Your task to perform on an android device: Go to Amazon Image 0: 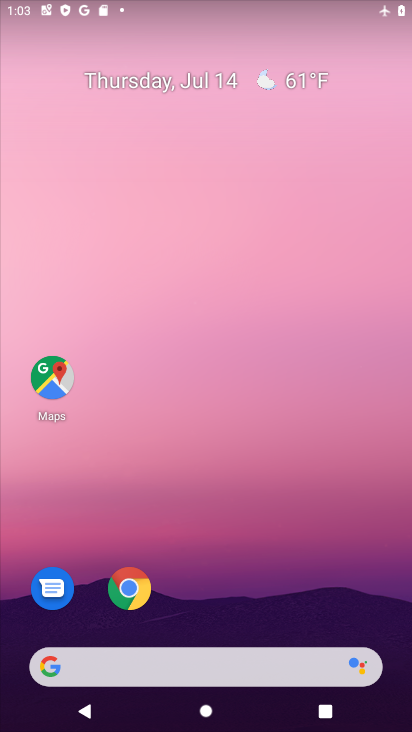
Step 0: click (133, 584)
Your task to perform on an android device: Go to Amazon Image 1: 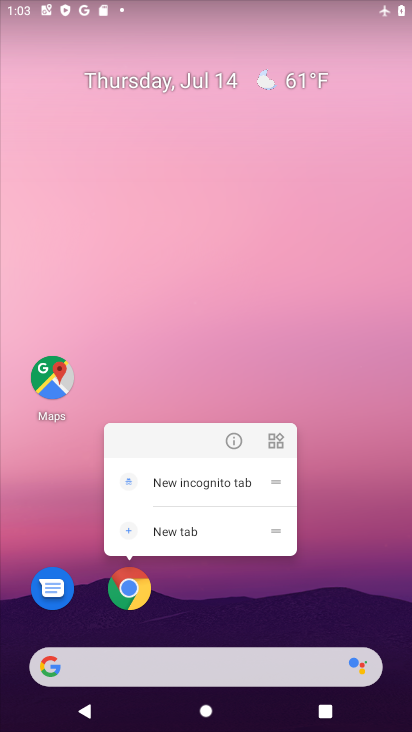
Step 1: click (133, 585)
Your task to perform on an android device: Go to Amazon Image 2: 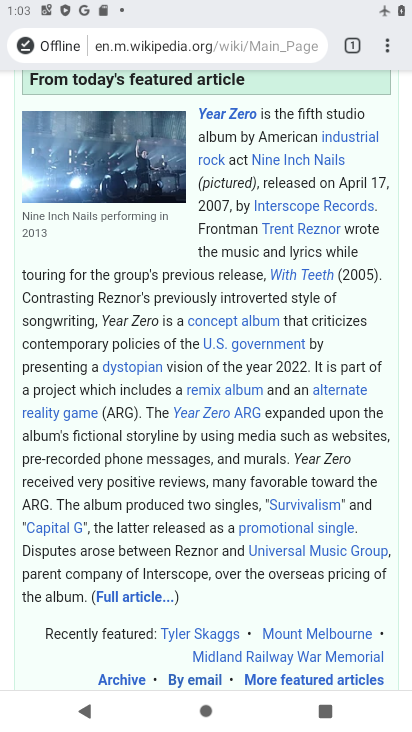
Step 2: click (226, 45)
Your task to perform on an android device: Go to Amazon Image 3: 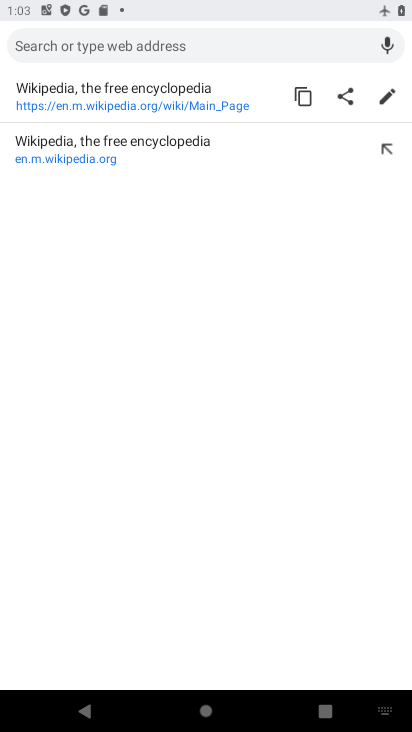
Step 3: type "amazon"
Your task to perform on an android device: Go to Amazon Image 4: 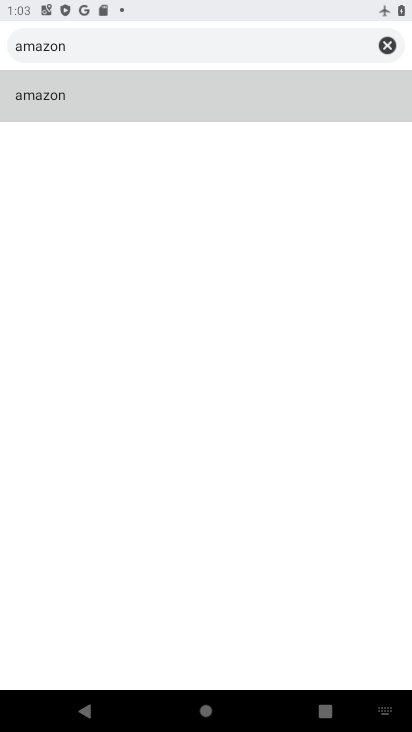
Step 4: click (220, 106)
Your task to perform on an android device: Go to Amazon Image 5: 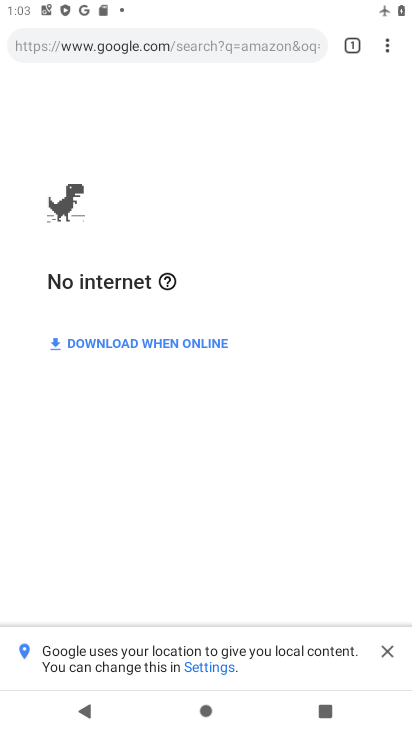
Step 5: task complete